Your task to perform on an android device: find which apps use the phone's location Image 0: 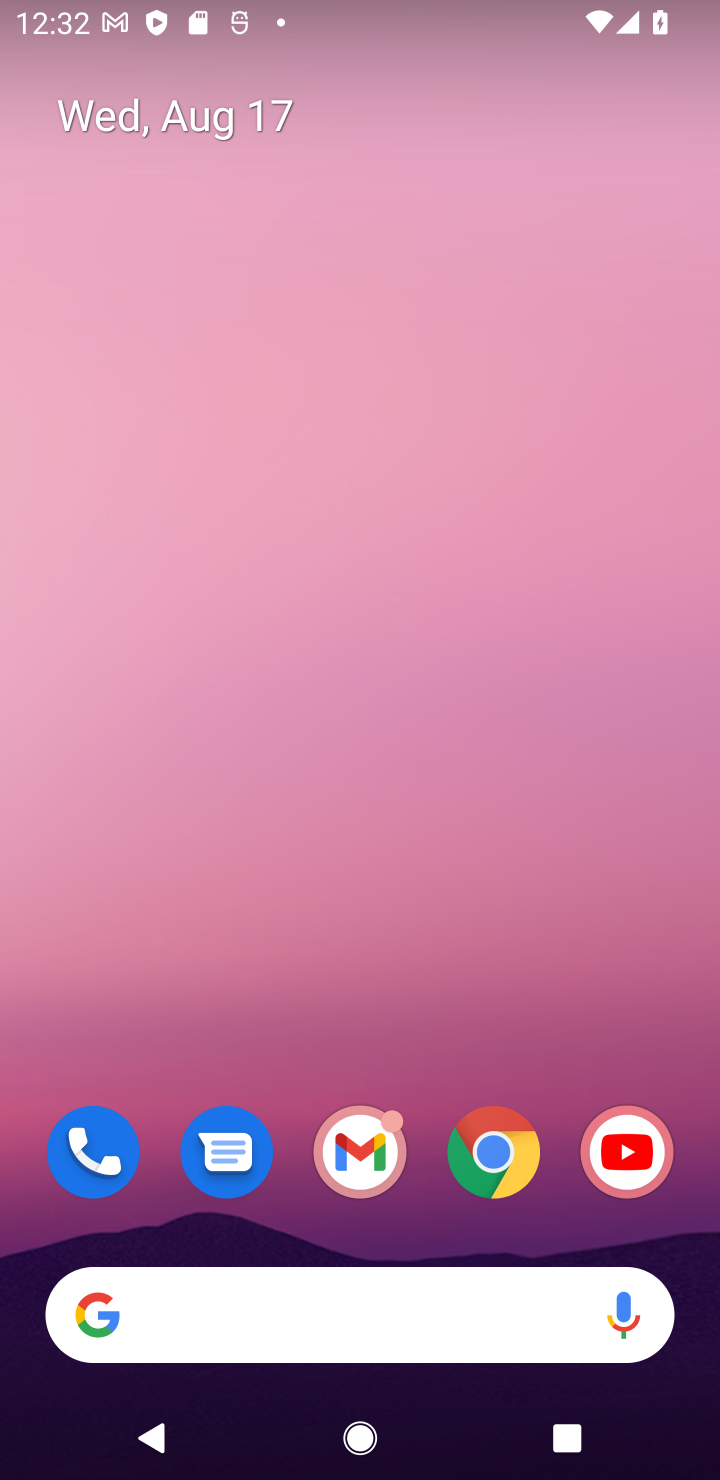
Step 0: drag from (561, 1224) to (370, 108)
Your task to perform on an android device: find which apps use the phone's location Image 1: 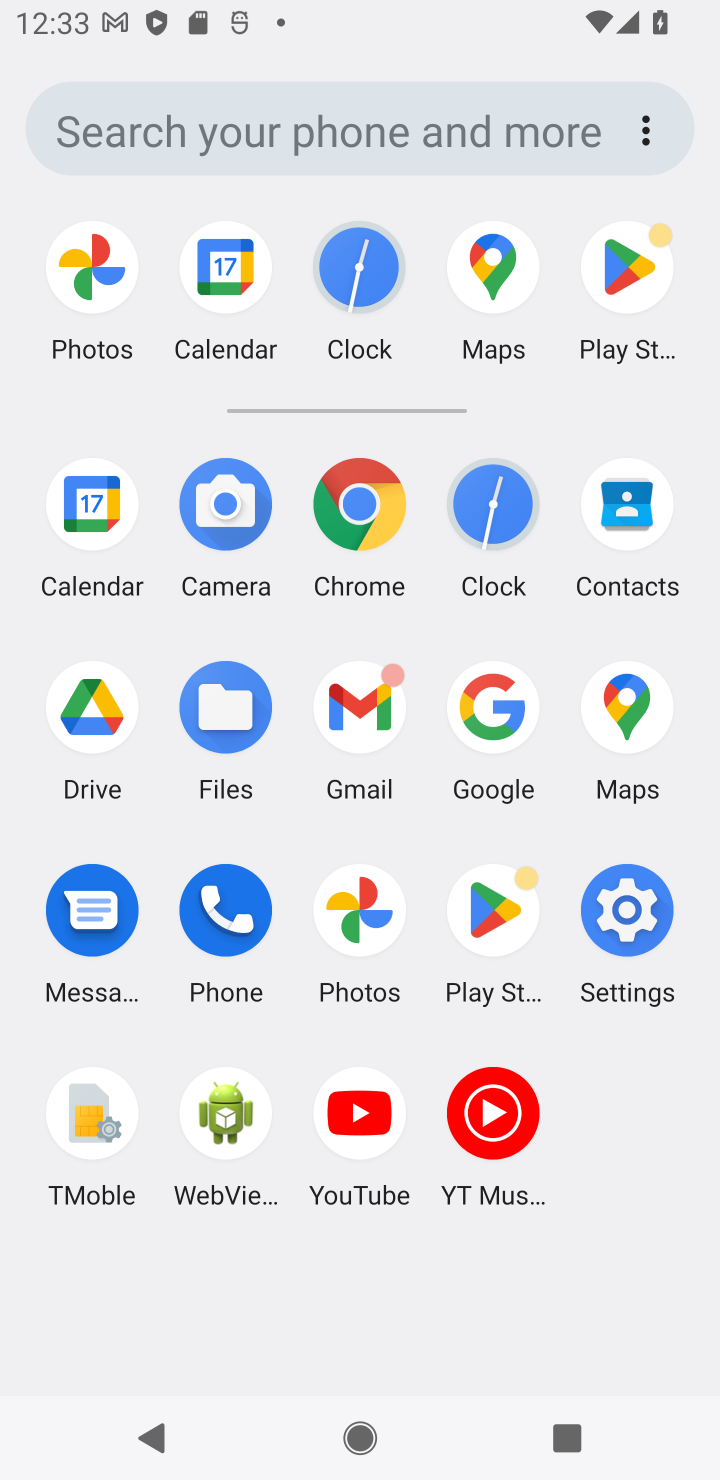
Step 1: click (639, 953)
Your task to perform on an android device: find which apps use the phone's location Image 2: 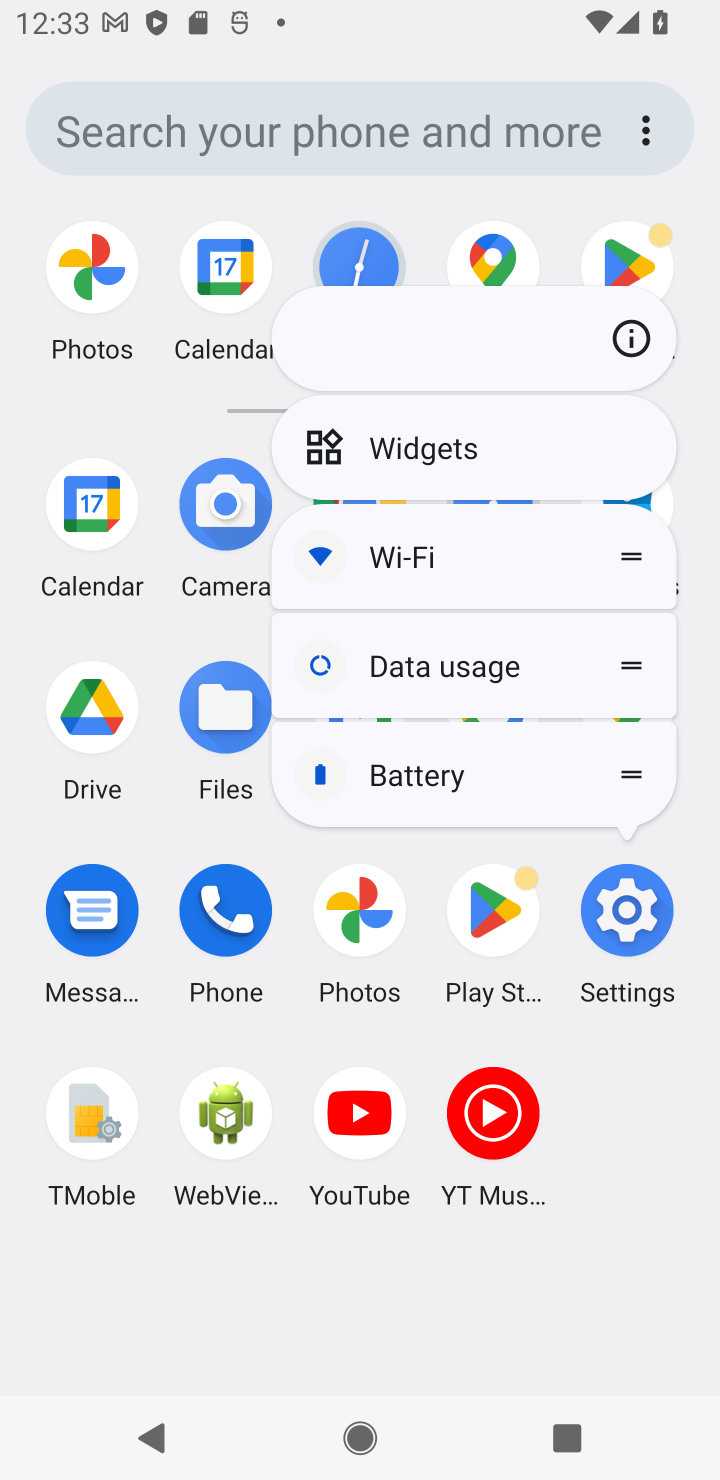
Step 2: click (639, 951)
Your task to perform on an android device: find which apps use the phone's location Image 3: 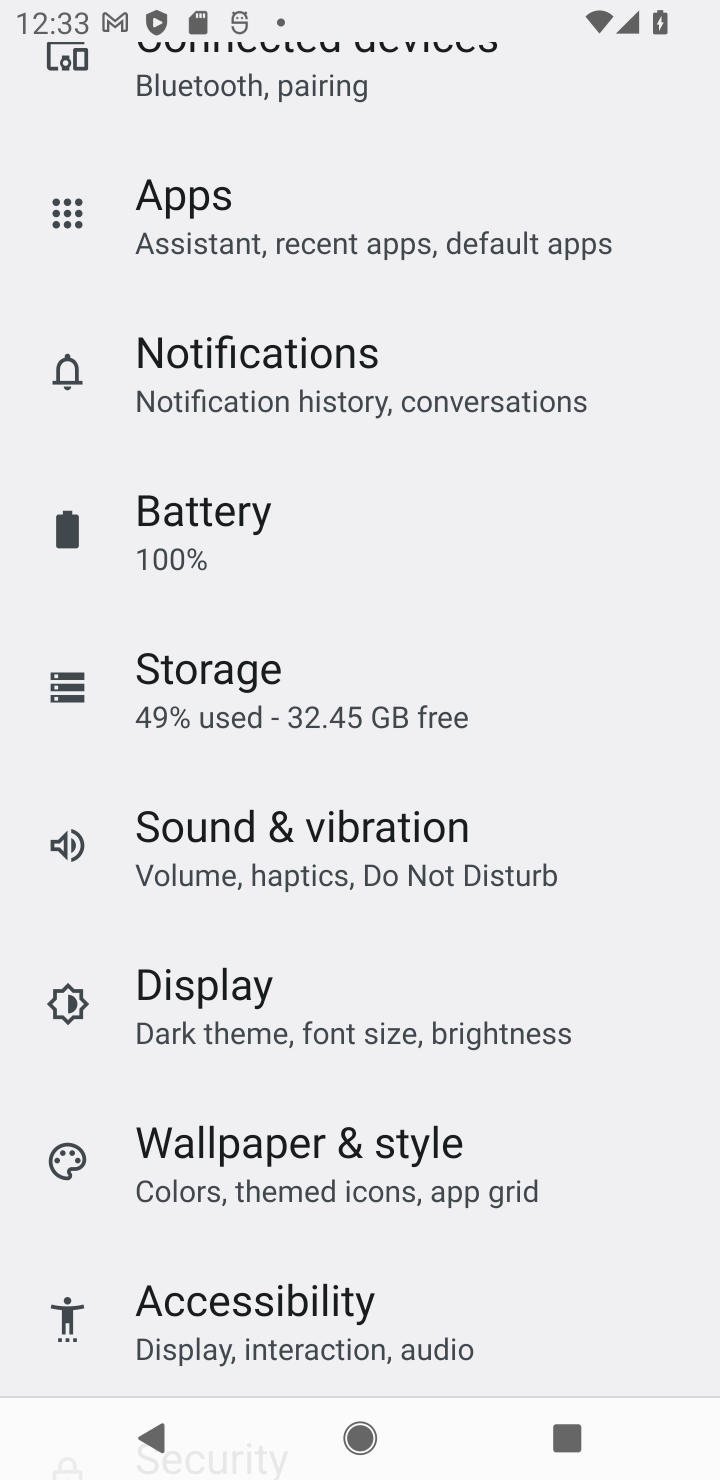
Step 3: task complete